Your task to perform on an android device: set an alarm Image 0: 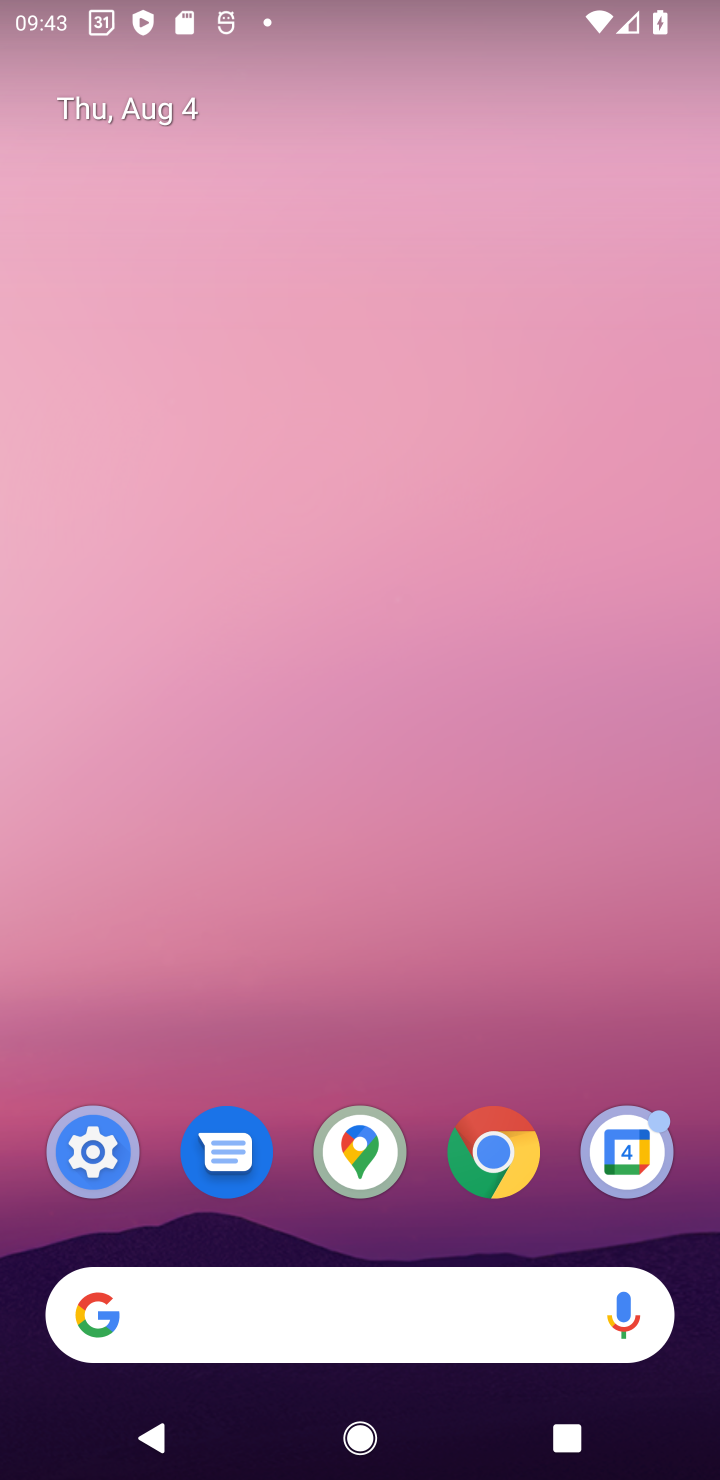
Step 0: press home button
Your task to perform on an android device: set an alarm Image 1: 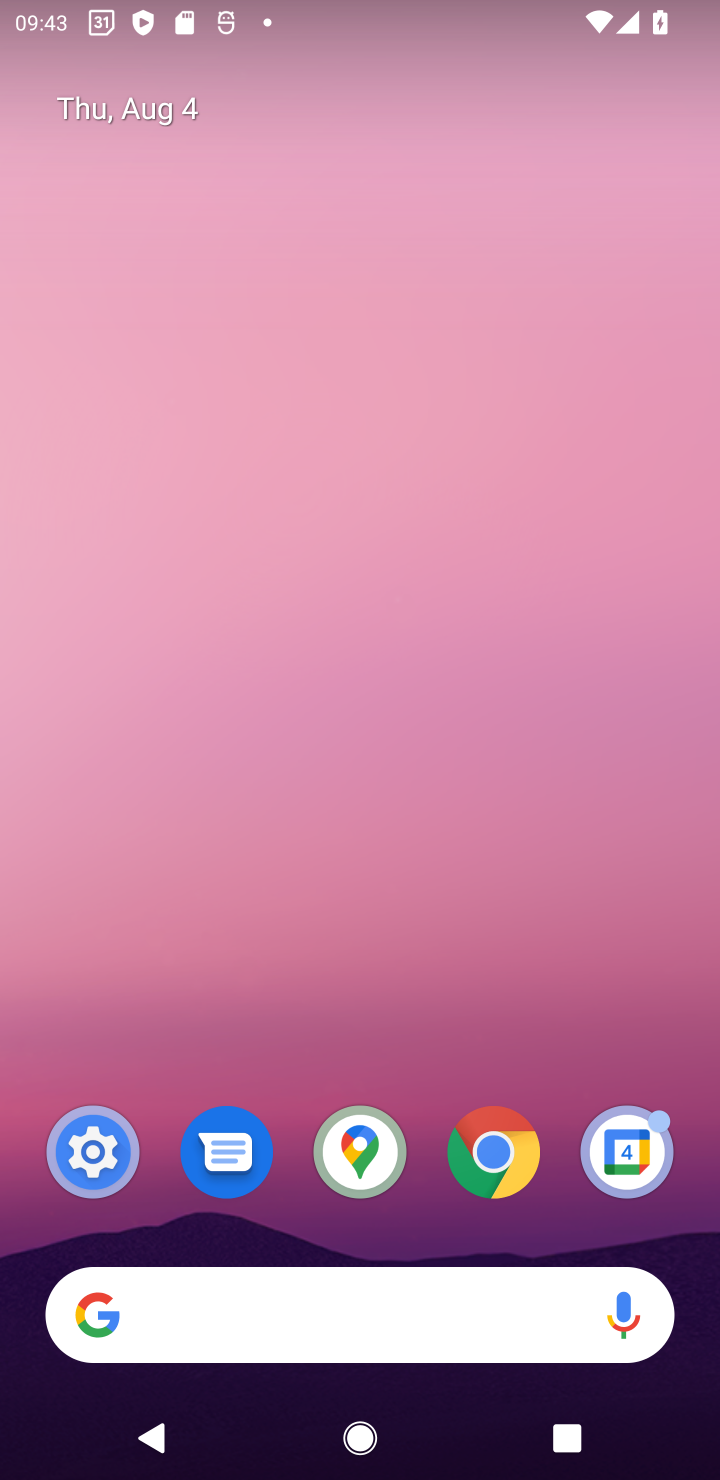
Step 1: drag from (80, 624) to (245, 18)
Your task to perform on an android device: set an alarm Image 2: 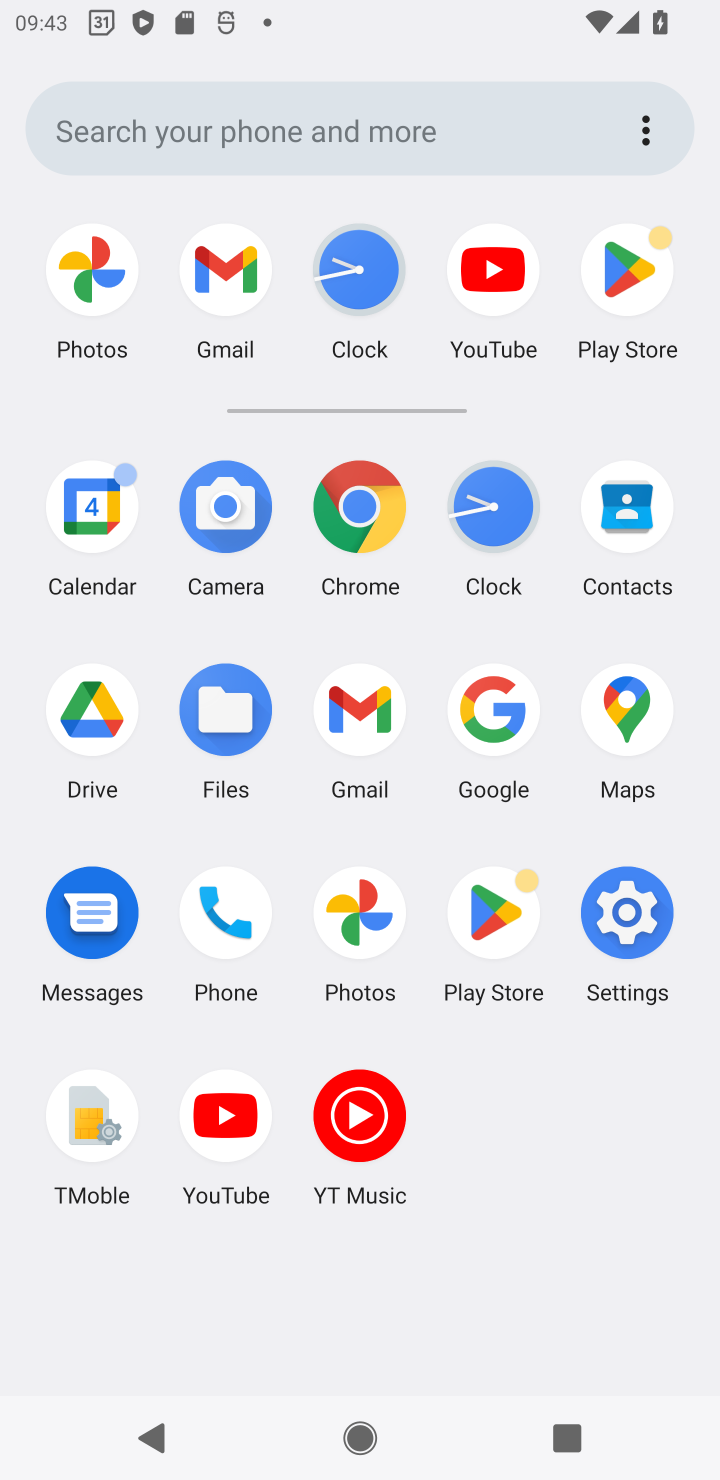
Step 2: click (458, 505)
Your task to perform on an android device: set an alarm Image 3: 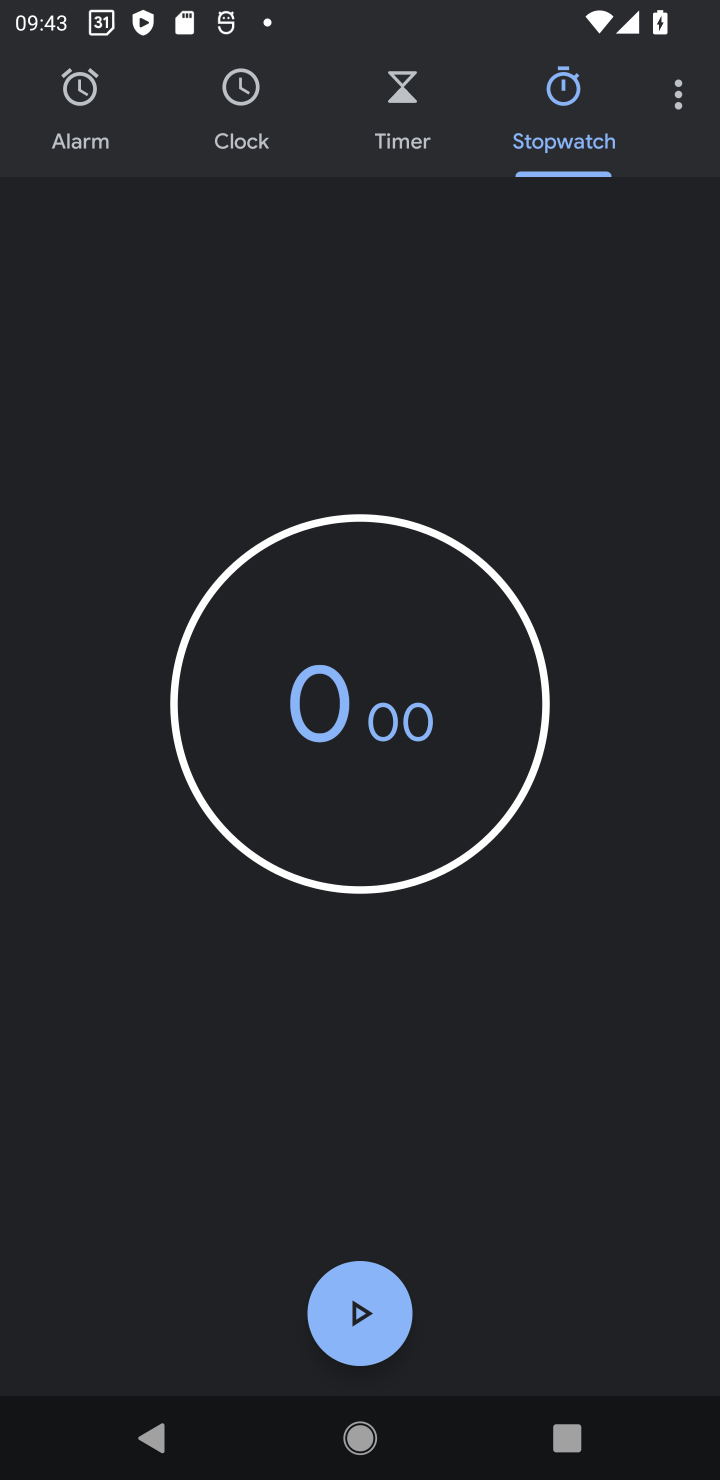
Step 3: click (76, 112)
Your task to perform on an android device: set an alarm Image 4: 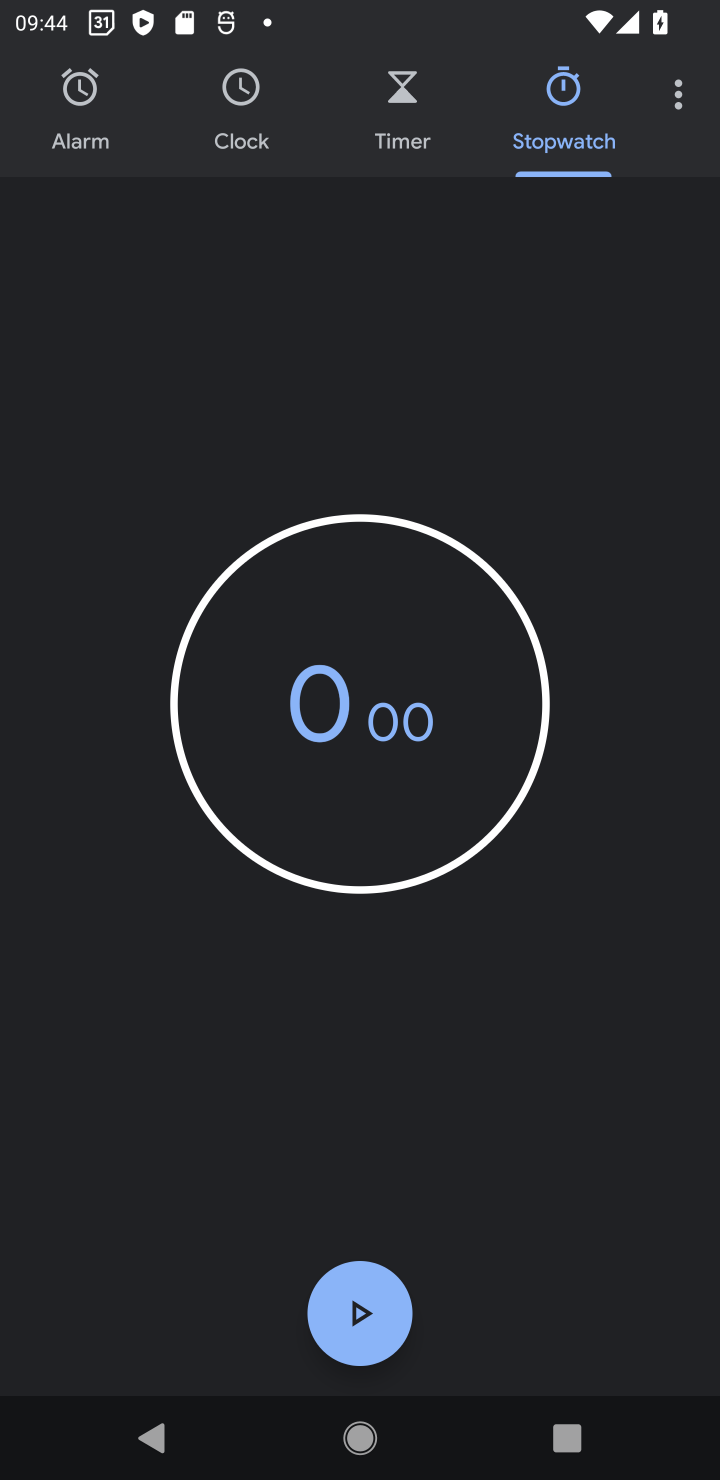
Step 4: click (75, 111)
Your task to perform on an android device: set an alarm Image 5: 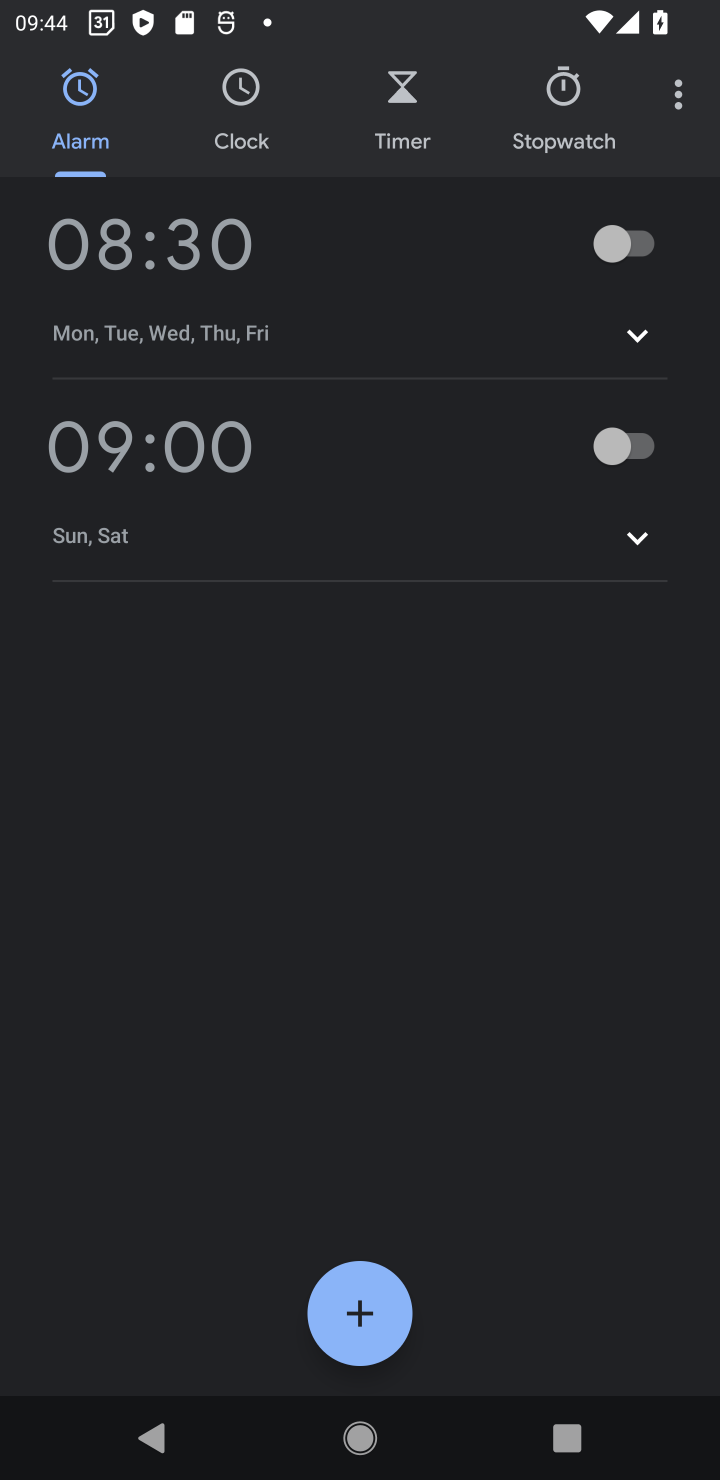
Step 5: click (363, 1301)
Your task to perform on an android device: set an alarm Image 6: 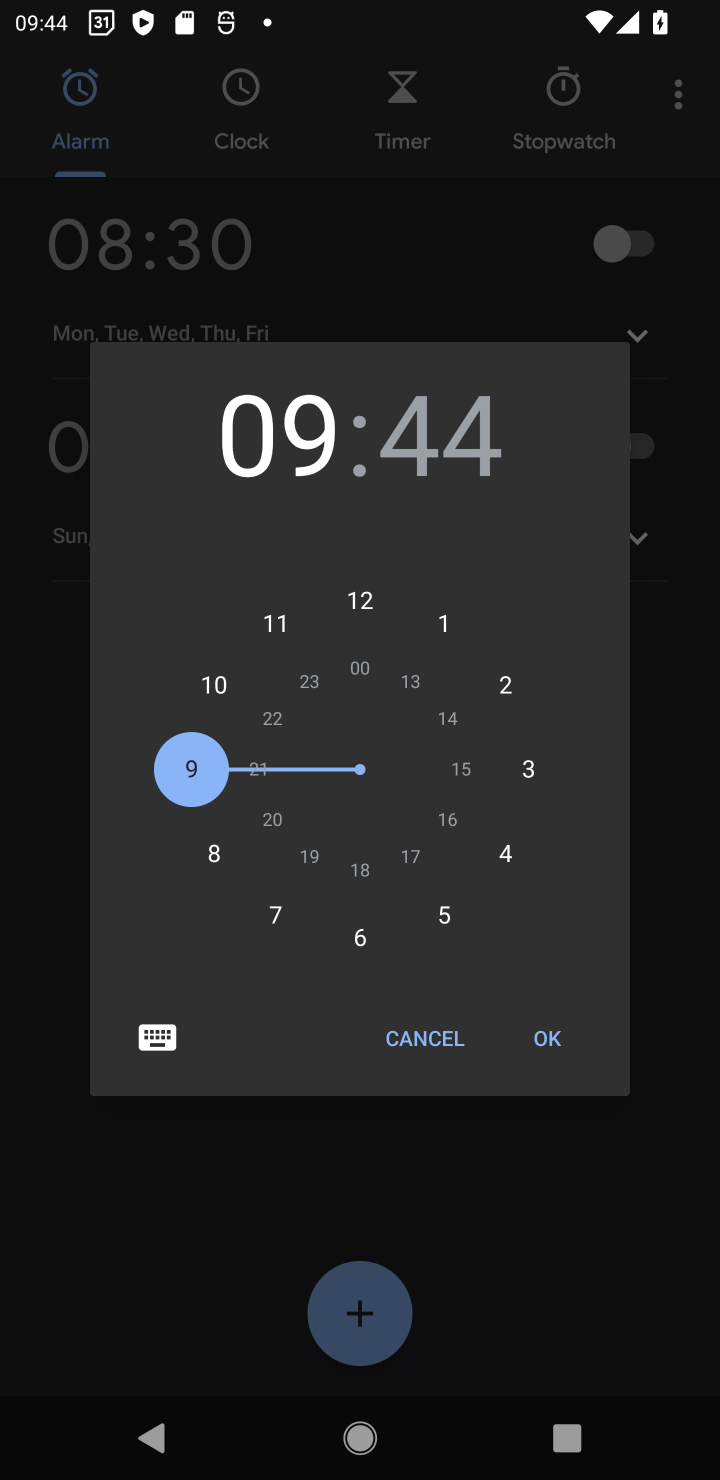
Step 6: click (224, 677)
Your task to perform on an android device: set an alarm Image 7: 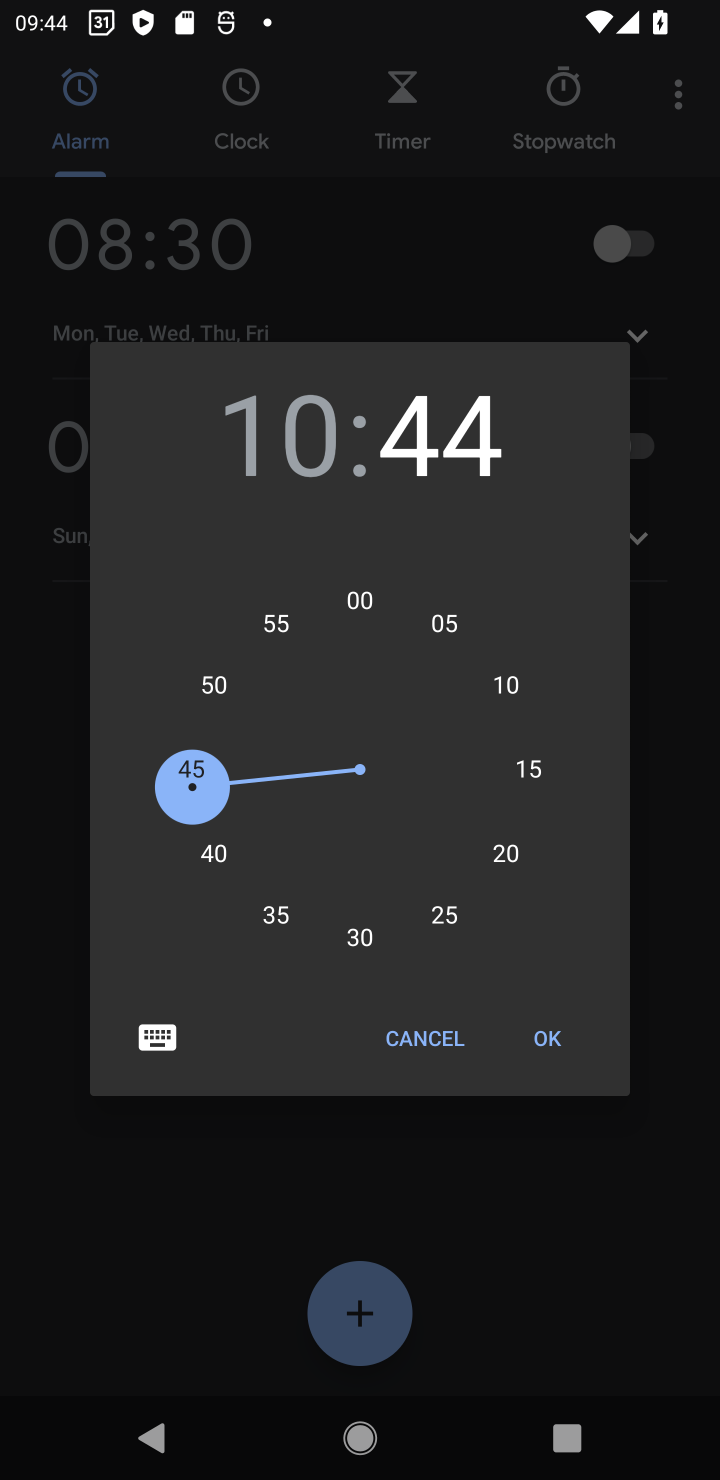
Step 7: click (192, 769)
Your task to perform on an android device: set an alarm Image 8: 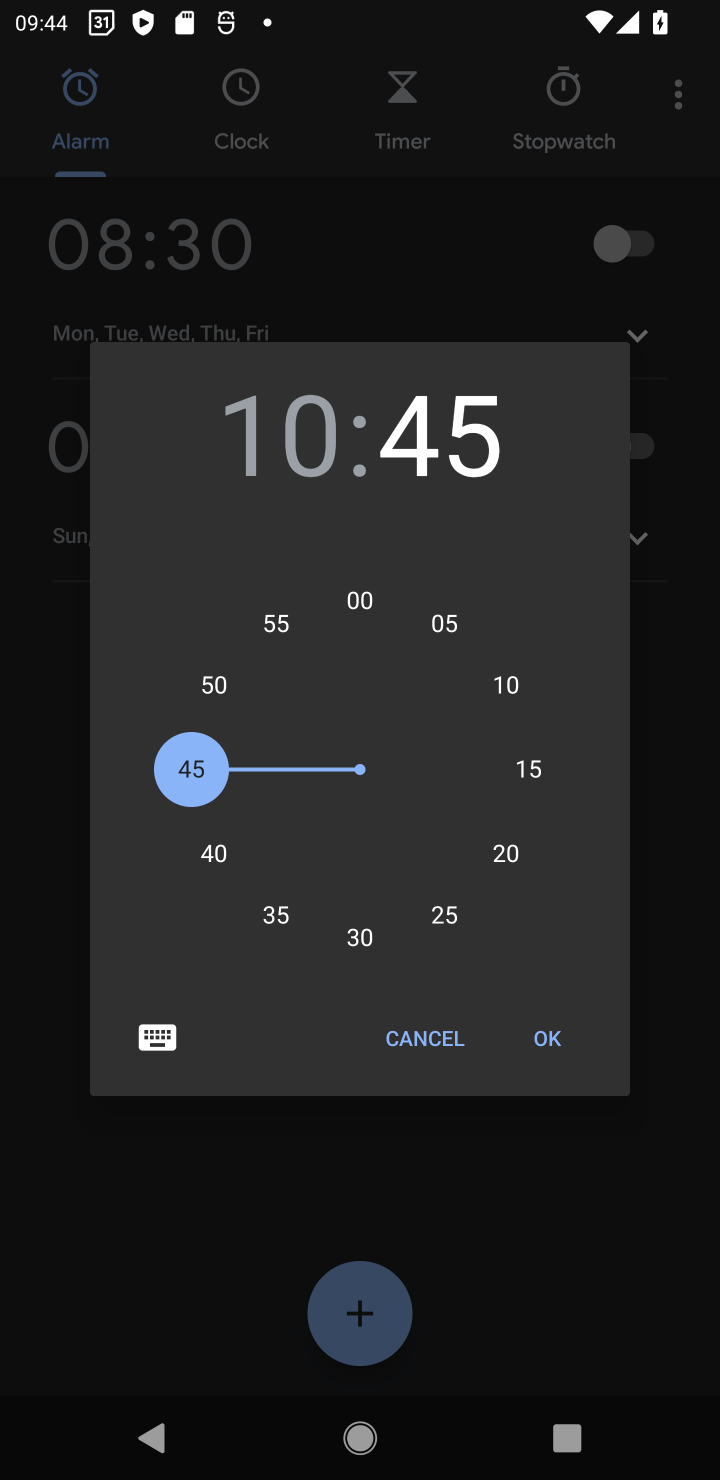
Step 8: click (539, 1019)
Your task to perform on an android device: set an alarm Image 9: 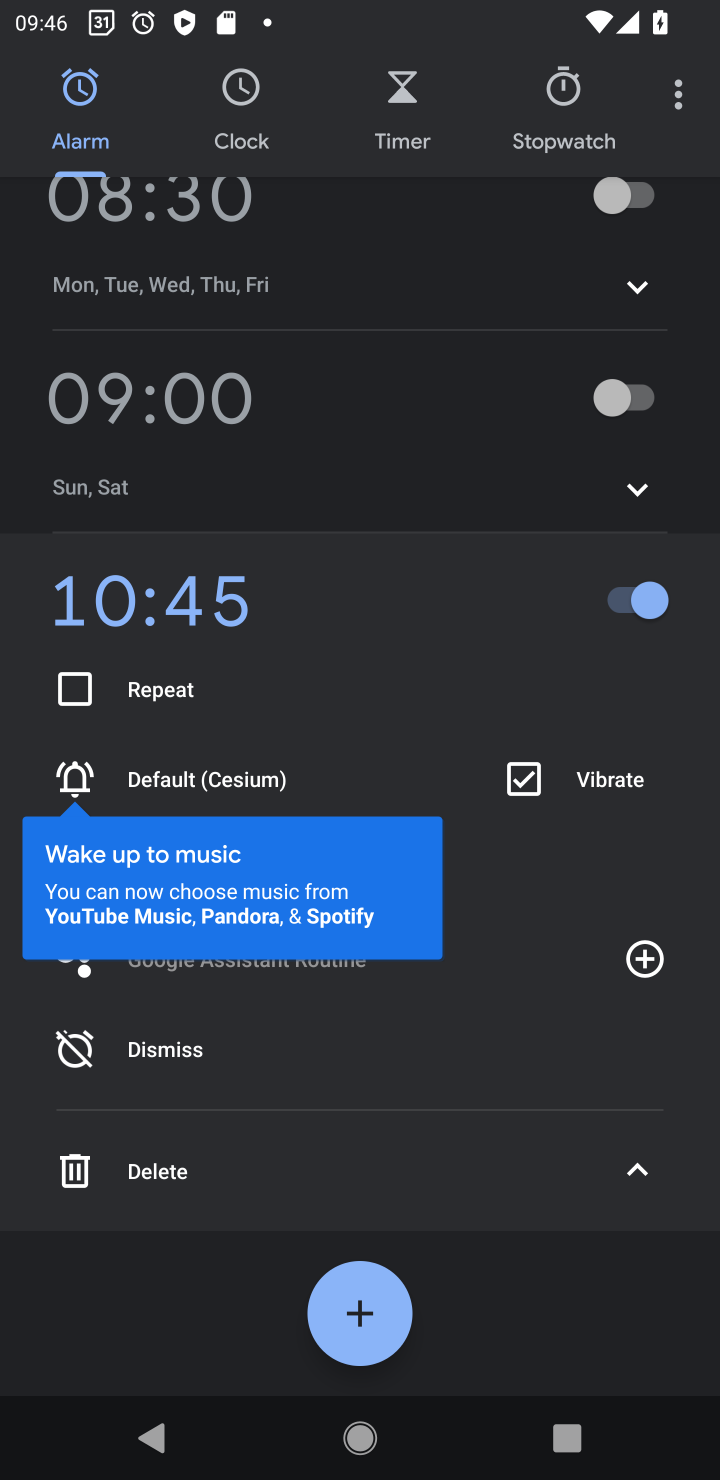
Step 9: task complete